Your task to perform on an android device: turn on wifi Image 0: 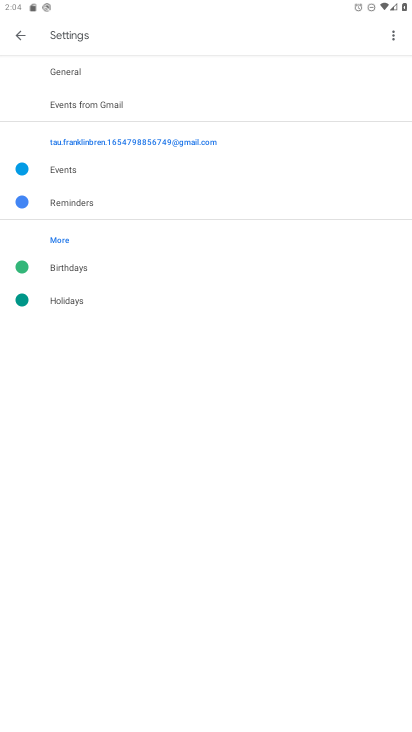
Step 0: press home button
Your task to perform on an android device: turn on wifi Image 1: 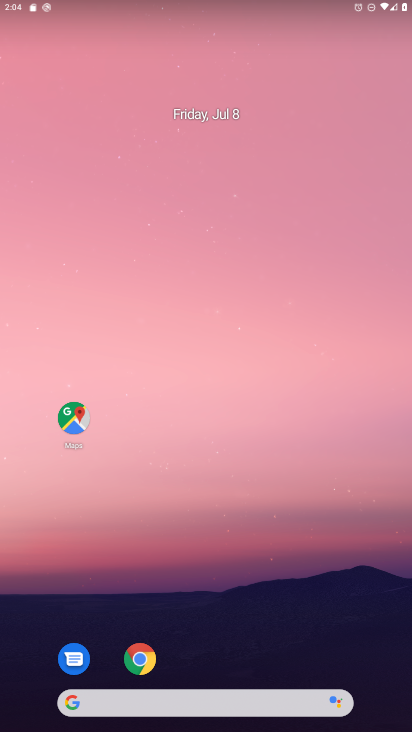
Step 1: drag from (263, 673) to (257, 187)
Your task to perform on an android device: turn on wifi Image 2: 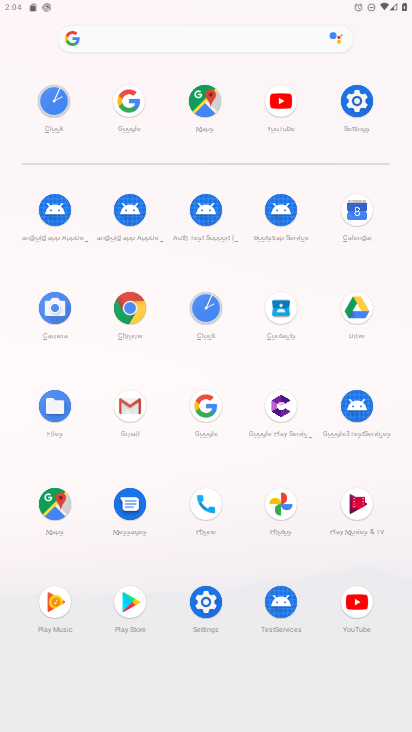
Step 2: click (356, 104)
Your task to perform on an android device: turn on wifi Image 3: 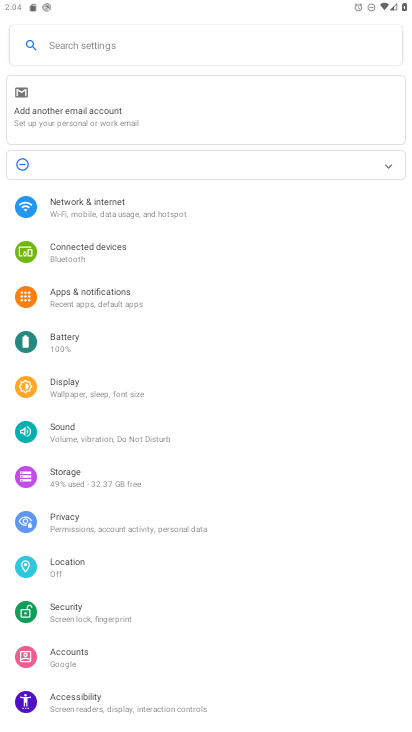
Step 3: click (72, 224)
Your task to perform on an android device: turn on wifi Image 4: 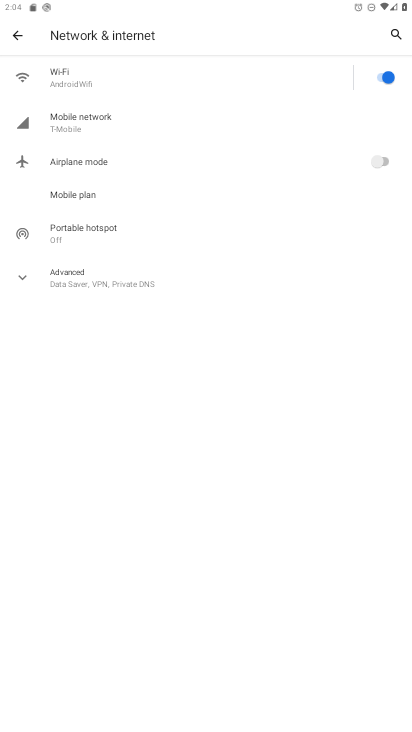
Step 4: task complete